Your task to perform on an android device: Is it going to rain this weekend? Image 0: 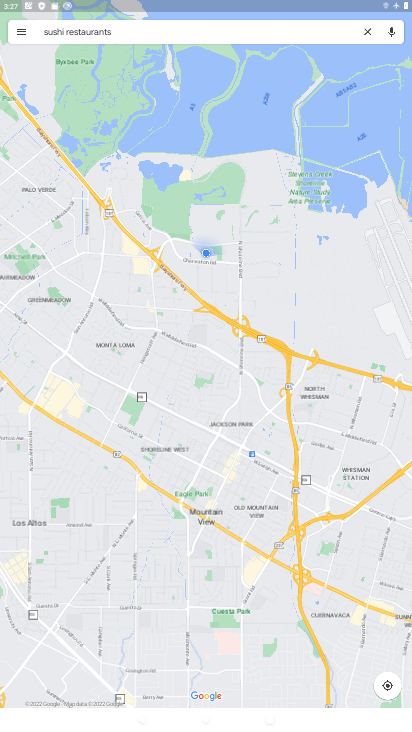
Step 0: press home button
Your task to perform on an android device: Is it going to rain this weekend? Image 1: 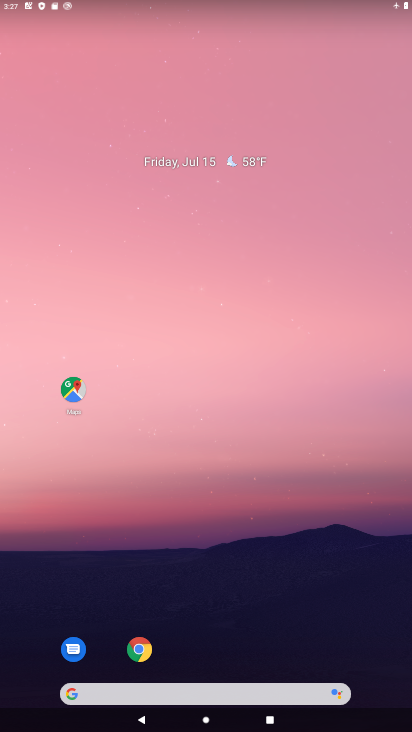
Step 1: click (231, 166)
Your task to perform on an android device: Is it going to rain this weekend? Image 2: 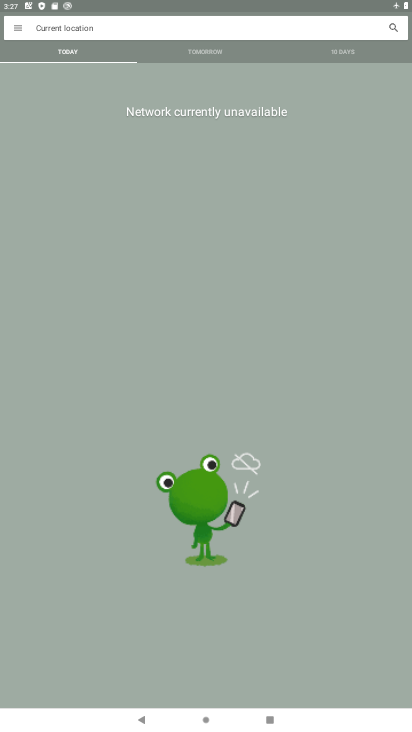
Step 2: click (343, 53)
Your task to perform on an android device: Is it going to rain this weekend? Image 3: 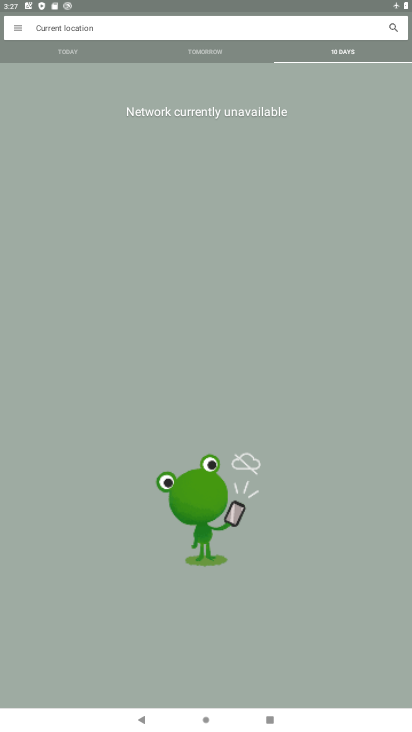
Step 3: task complete